Your task to perform on an android device: Is it going to rain tomorrow? Image 0: 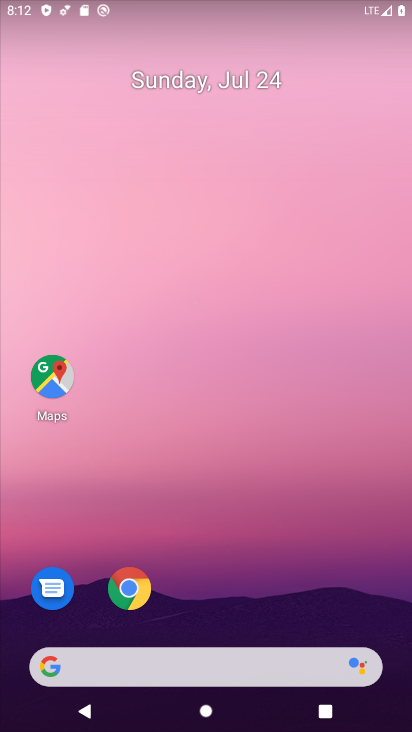
Step 0: drag from (5, 296) to (381, 291)
Your task to perform on an android device: Is it going to rain tomorrow? Image 1: 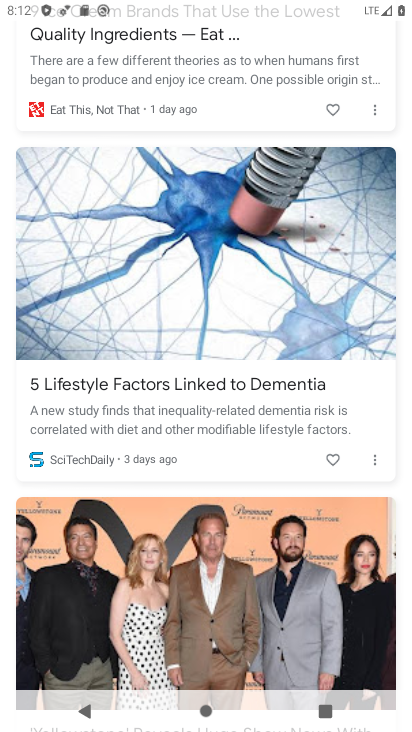
Step 1: drag from (208, 146) to (191, 714)
Your task to perform on an android device: Is it going to rain tomorrow? Image 2: 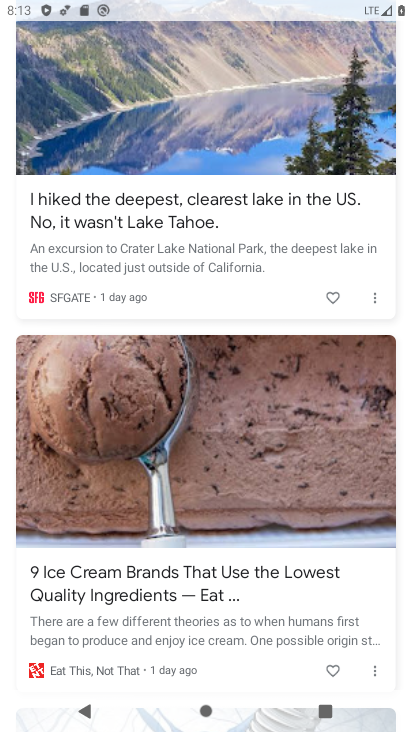
Step 2: drag from (185, 166) to (195, 514)
Your task to perform on an android device: Is it going to rain tomorrow? Image 3: 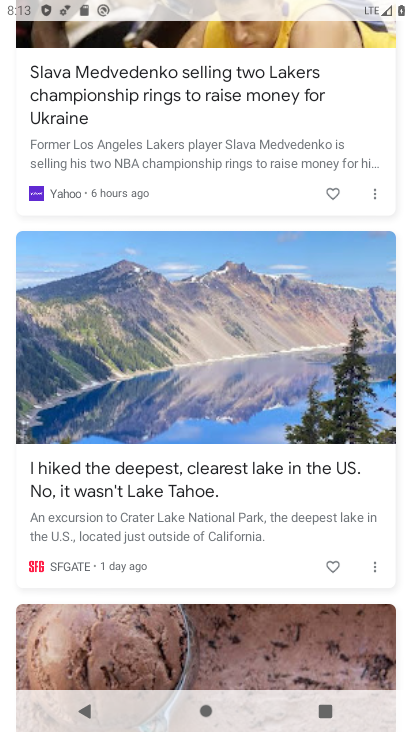
Step 3: drag from (242, 101) to (230, 611)
Your task to perform on an android device: Is it going to rain tomorrow? Image 4: 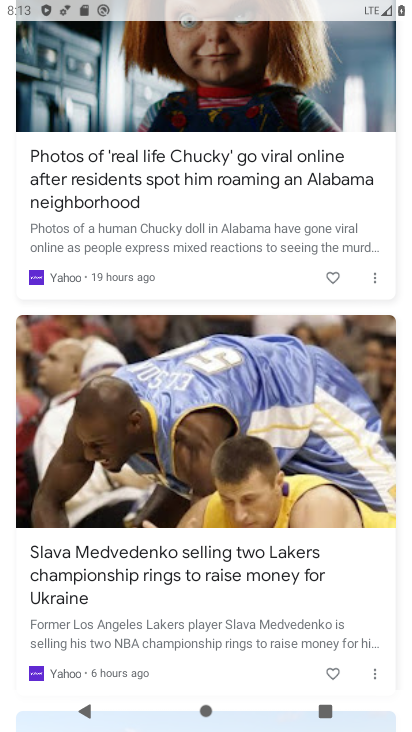
Step 4: drag from (275, 100) to (269, 512)
Your task to perform on an android device: Is it going to rain tomorrow? Image 5: 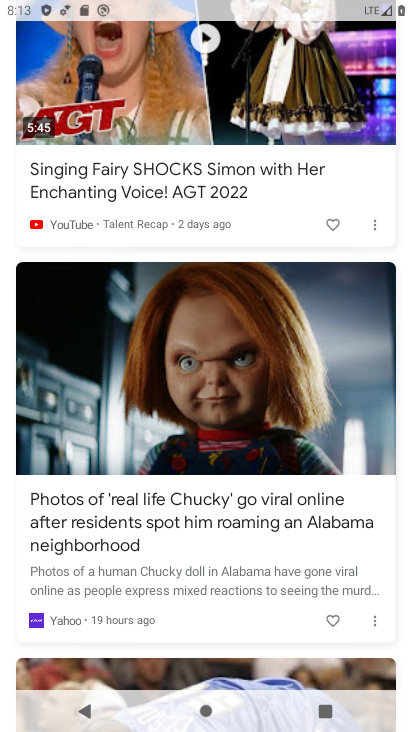
Step 5: drag from (241, 39) to (271, 446)
Your task to perform on an android device: Is it going to rain tomorrow? Image 6: 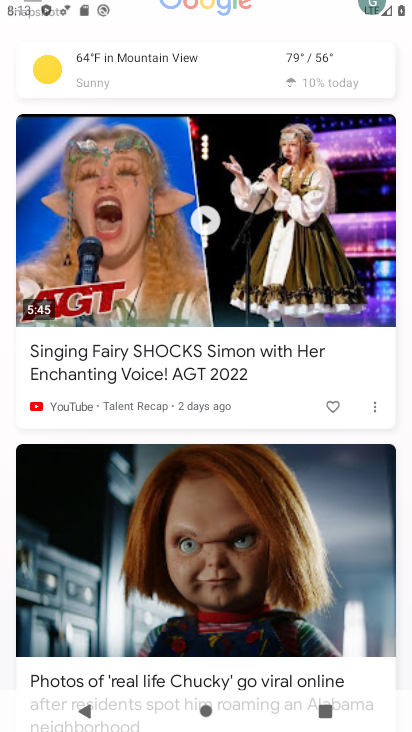
Step 6: click (314, 61)
Your task to perform on an android device: Is it going to rain tomorrow? Image 7: 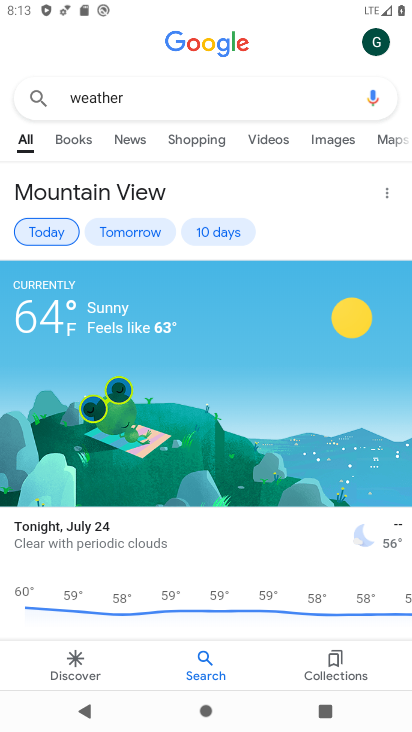
Step 7: click (119, 229)
Your task to perform on an android device: Is it going to rain tomorrow? Image 8: 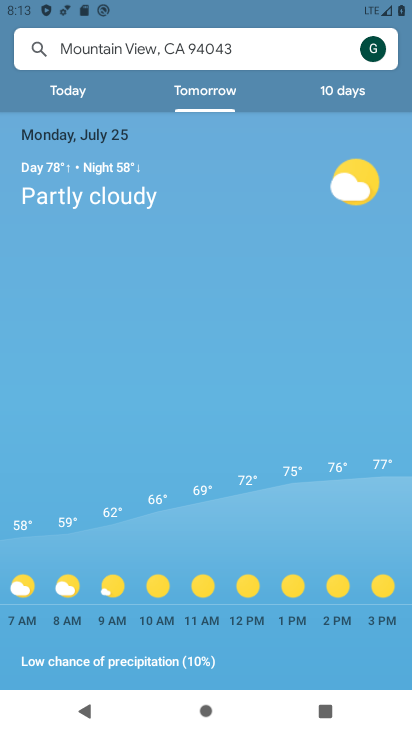
Step 8: task complete